Your task to perform on an android device: Open the Play Movies app and select the watchlist tab. Image 0: 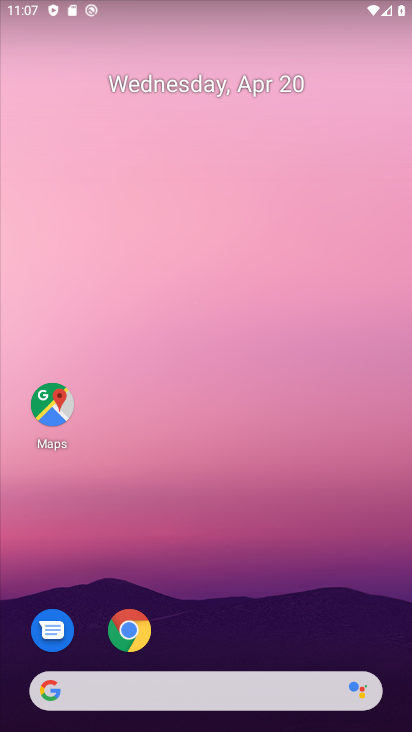
Step 0: drag from (170, 636) to (261, 98)
Your task to perform on an android device: Open the Play Movies app and select the watchlist tab. Image 1: 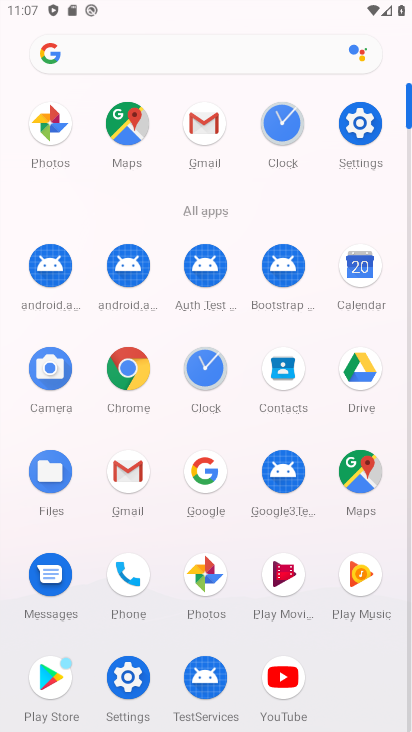
Step 1: click (275, 580)
Your task to perform on an android device: Open the Play Movies app and select the watchlist tab. Image 2: 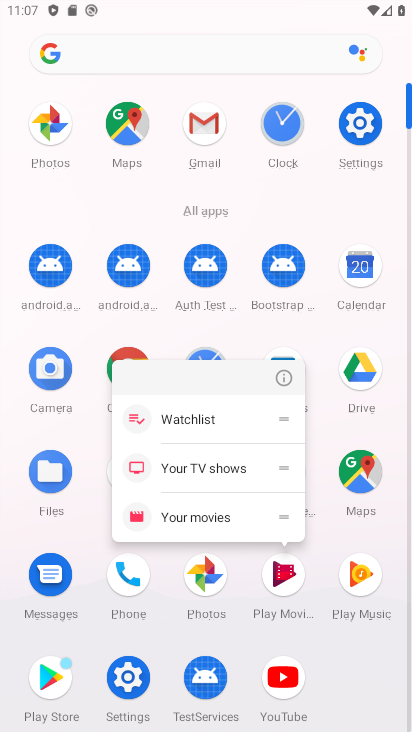
Step 2: click (296, 576)
Your task to perform on an android device: Open the Play Movies app and select the watchlist tab. Image 3: 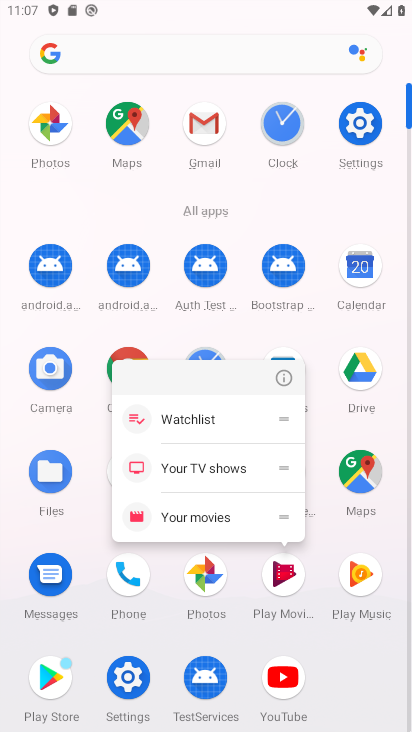
Step 3: click (293, 573)
Your task to perform on an android device: Open the Play Movies app and select the watchlist tab. Image 4: 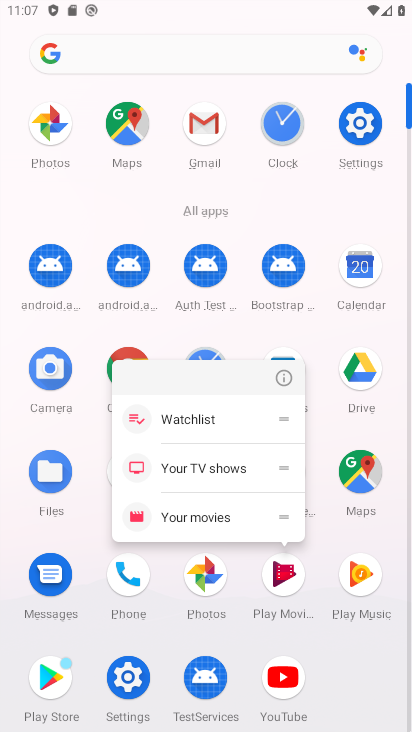
Step 4: click (278, 573)
Your task to perform on an android device: Open the Play Movies app and select the watchlist tab. Image 5: 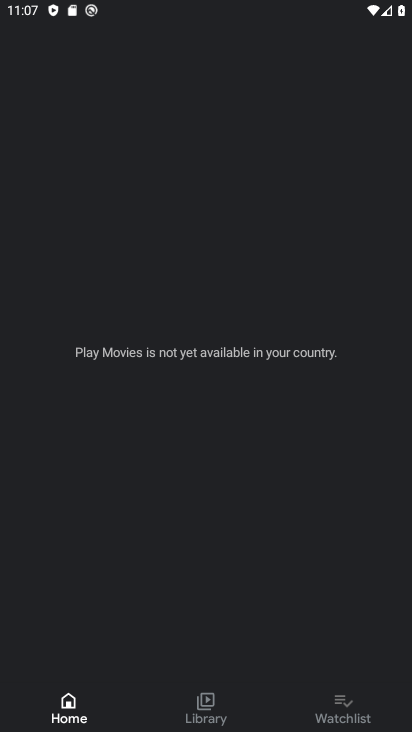
Step 5: click (330, 716)
Your task to perform on an android device: Open the Play Movies app and select the watchlist tab. Image 6: 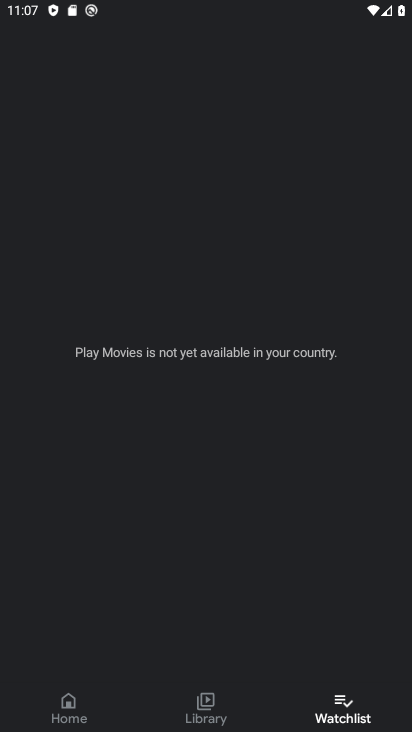
Step 6: task complete